Your task to perform on an android device: Open wifi settings Image 0: 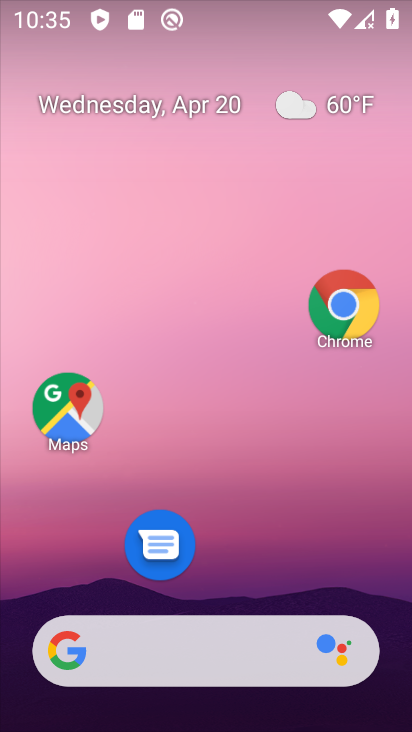
Step 0: click (240, 445)
Your task to perform on an android device: Open wifi settings Image 1: 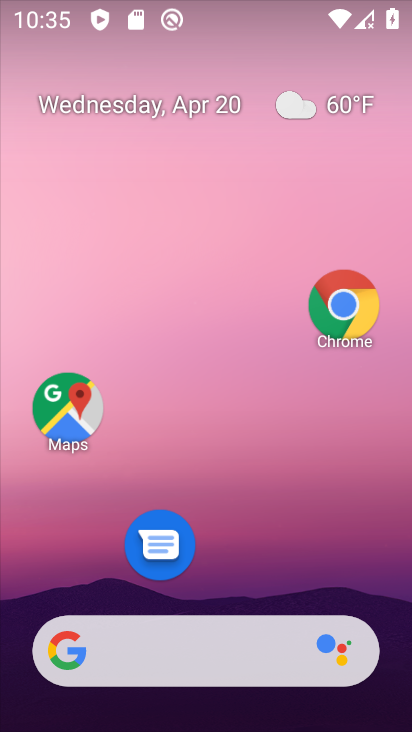
Step 1: click (257, 353)
Your task to perform on an android device: Open wifi settings Image 2: 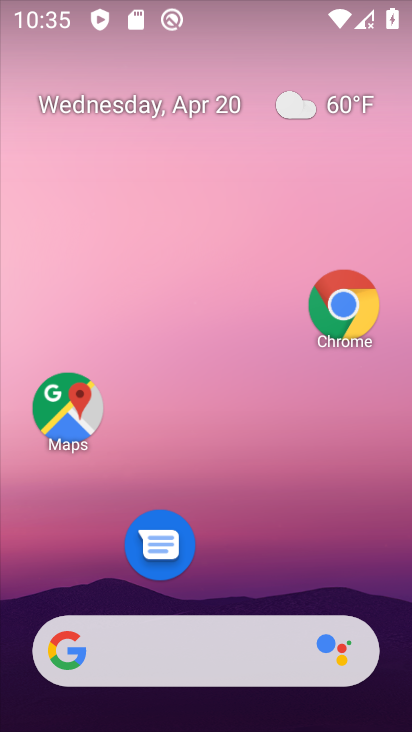
Step 2: drag from (204, 511) to (161, 267)
Your task to perform on an android device: Open wifi settings Image 3: 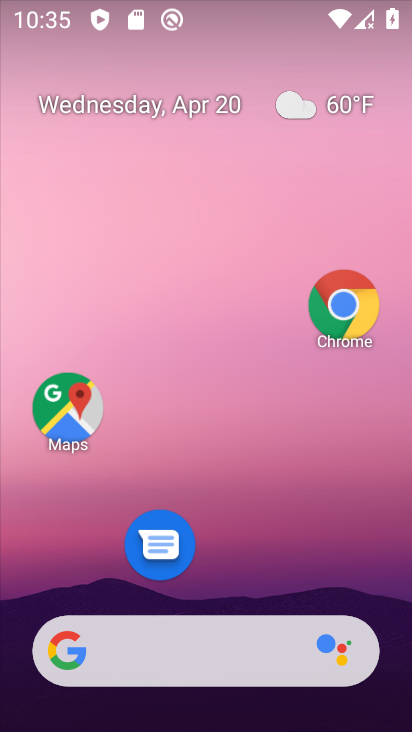
Step 3: drag from (208, 556) to (178, 283)
Your task to perform on an android device: Open wifi settings Image 4: 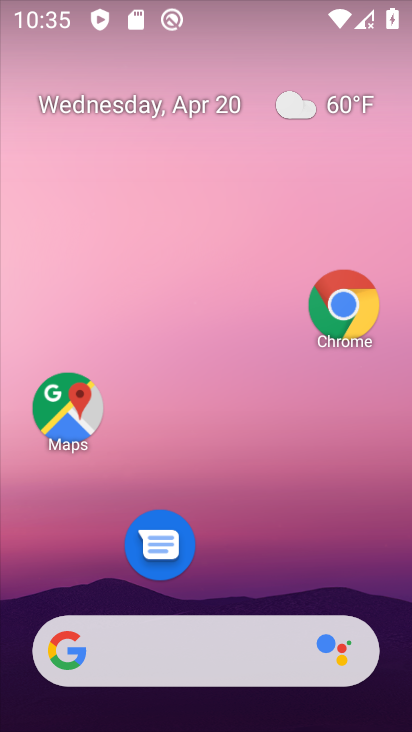
Step 4: drag from (245, 426) to (246, 138)
Your task to perform on an android device: Open wifi settings Image 5: 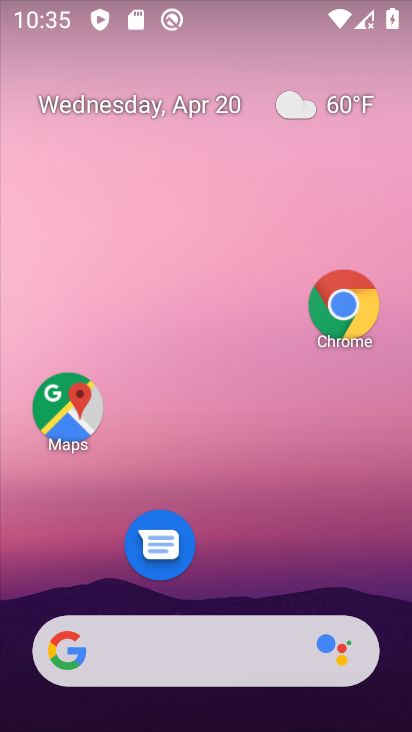
Step 5: drag from (241, 560) to (209, 177)
Your task to perform on an android device: Open wifi settings Image 6: 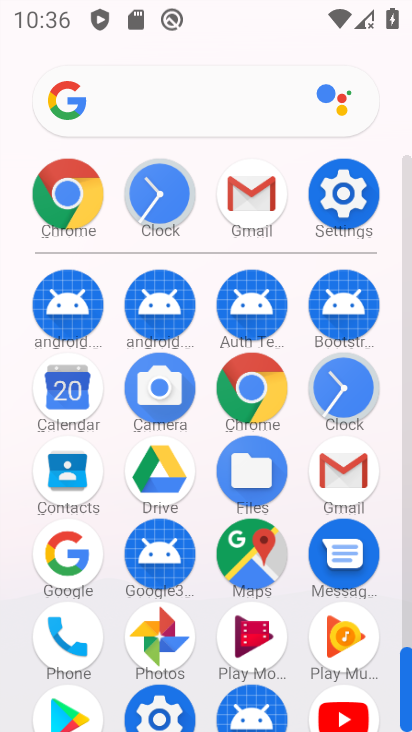
Step 6: click (350, 210)
Your task to perform on an android device: Open wifi settings Image 7: 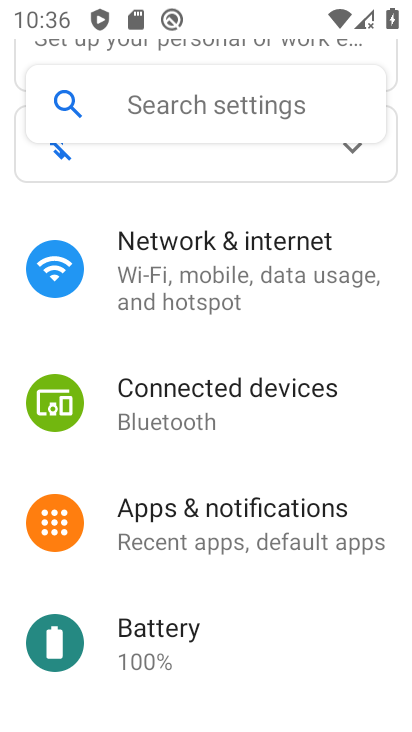
Step 7: drag from (267, 356) to (223, 663)
Your task to perform on an android device: Open wifi settings Image 8: 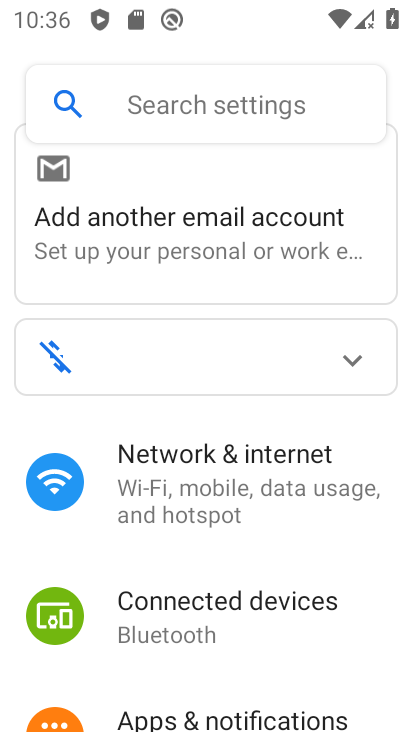
Step 8: click (160, 468)
Your task to perform on an android device: Open wifi settings Image 9: 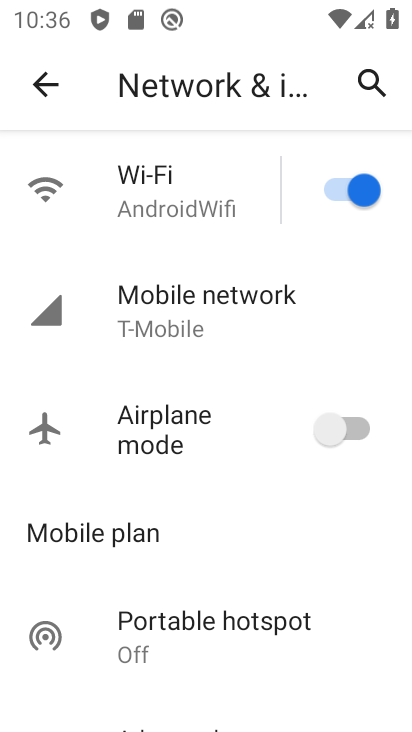
Step 9: click (196, 187)
Your task to perform on an android device: Open wifi settings Image 10: 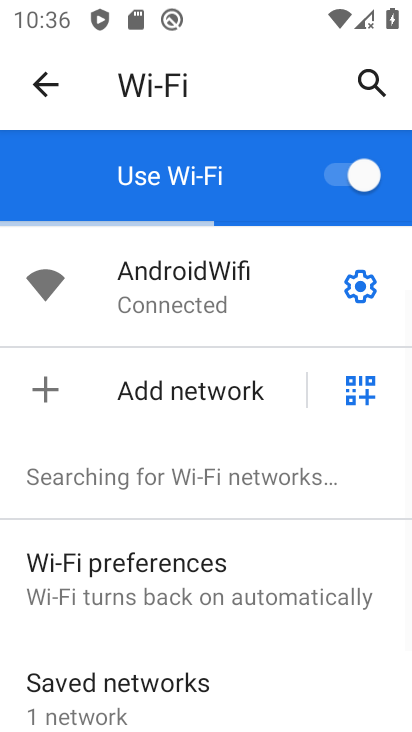
Step 10: task complete